Your task to perform on an android device: Search for "razer thresher" on amazon.com, select the first entry, and add it to the cart. Image 0: 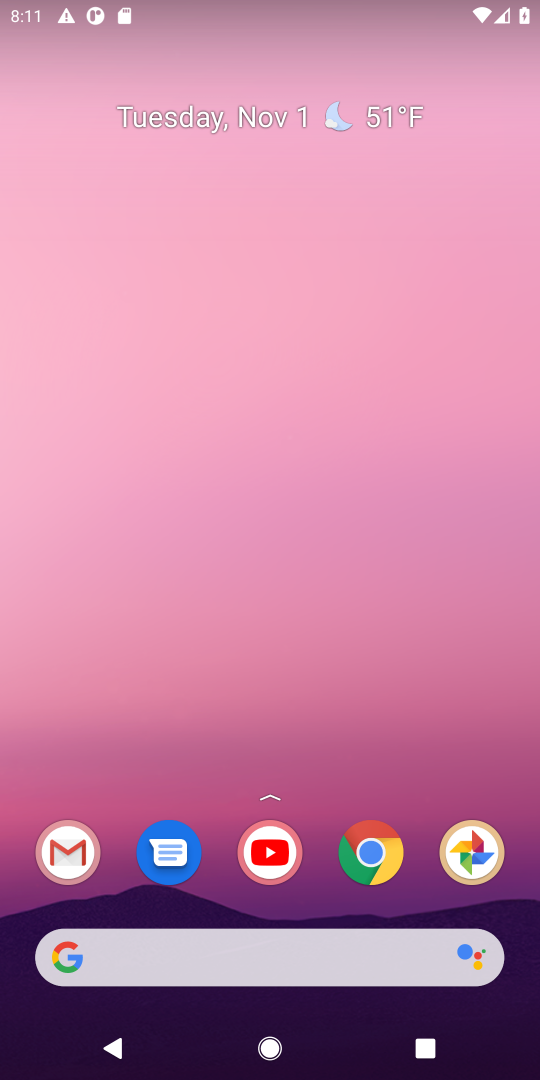
Step 0: drag from (268, 927) to (295, 258)
Your task to perform on an android device: Search for "razer thresher" on amazon.com, select the first entry, and add it to the cart. Image 1: 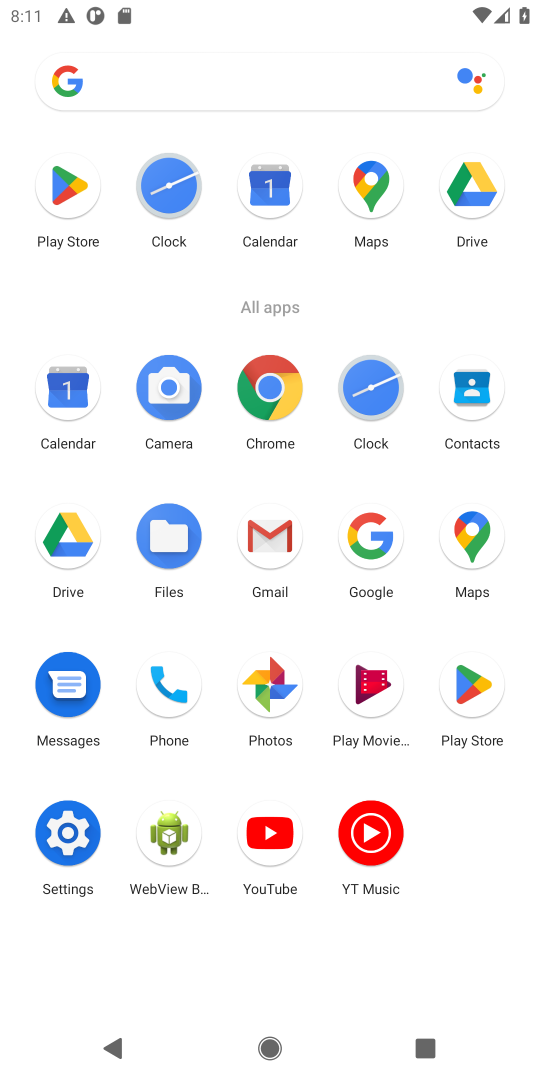
Step 1: click (379, 553)
Your task to perform on an android device: Search for "razer thresher" on amazon.com, select the first entry, and add it to the cart. Image 2: 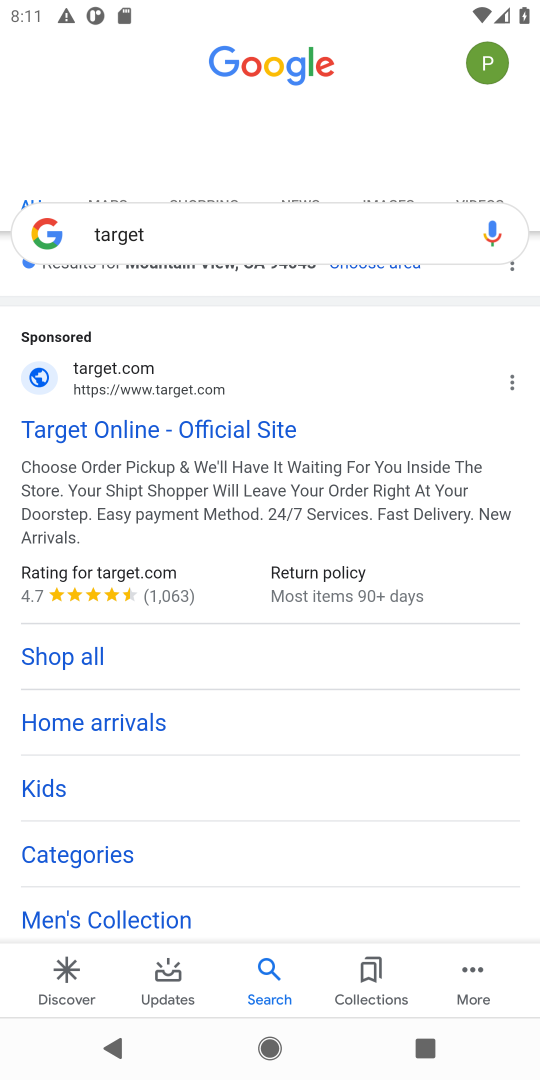
Step 2: click (322, 239)
Your task to perform on an android device: Search for "razer thresher" on amazon.com, select the first entry, and add it to the cart. Image 3: 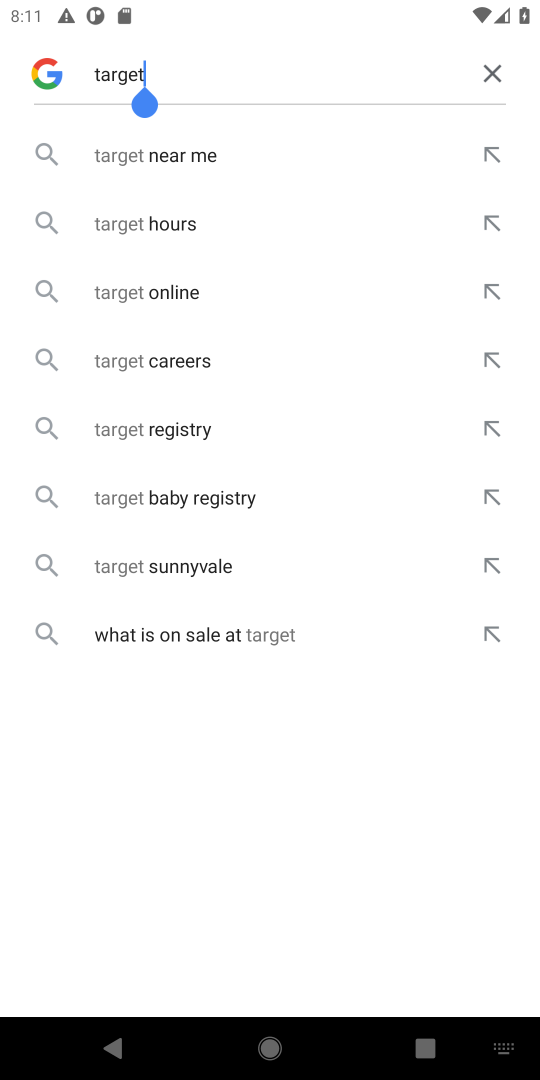
Step 3: click (492, 70)
Your task to perform on an android device: Search for "razer thresher" on amazon.com, select the first entry, and add it to the cart. Image 4: 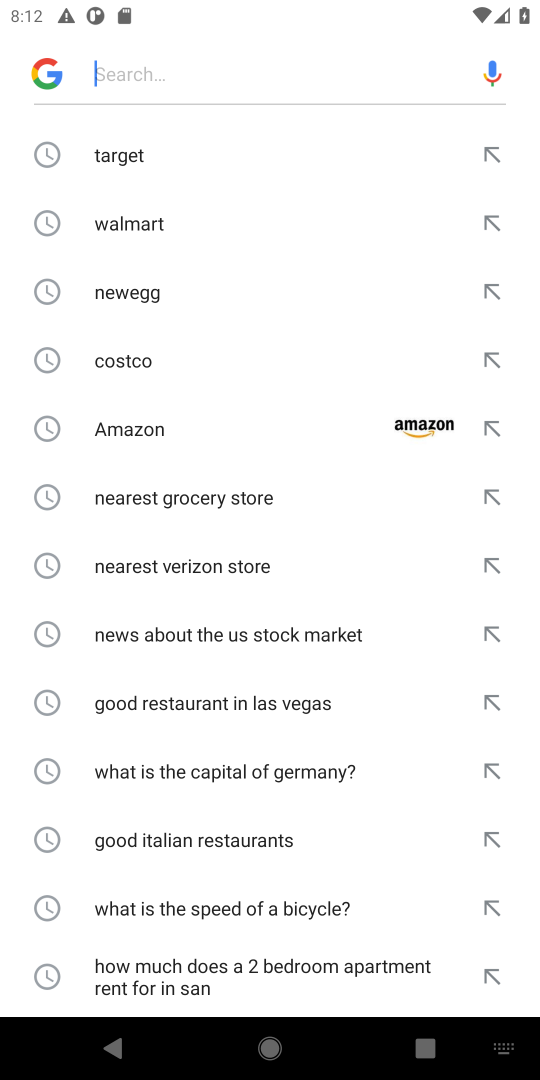
Step 4: type "amazon.com"
Your task to perform on an android device: Search for "razer thresher" on amazon.com, select the first entry, and add it to the cart. Image 5: 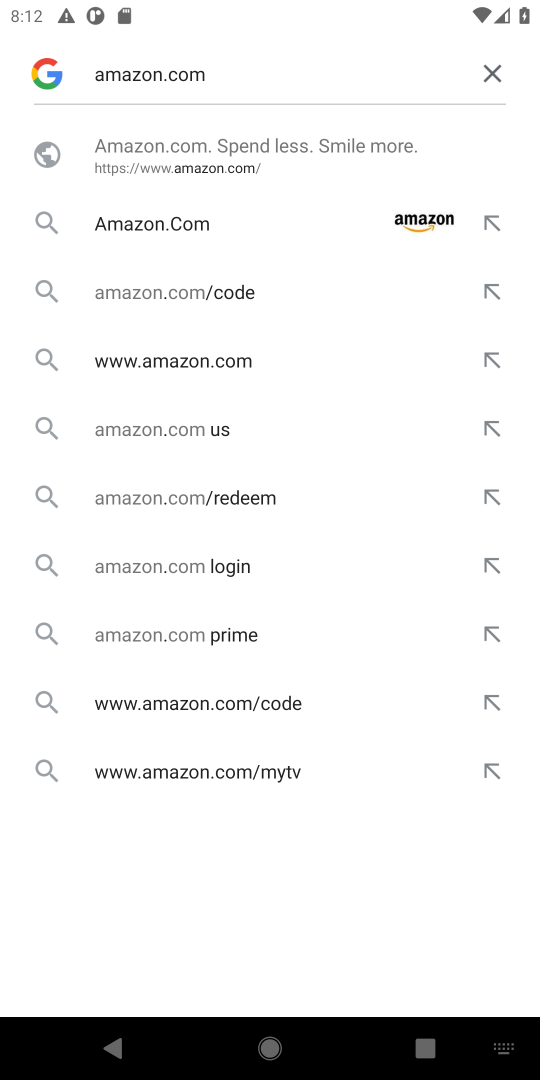
Step 5: click (285, 228)
Your task to perform on an android device: Search for "razer thresher" on amazon.com, select the first entry, and add it to the cart. Image 6: 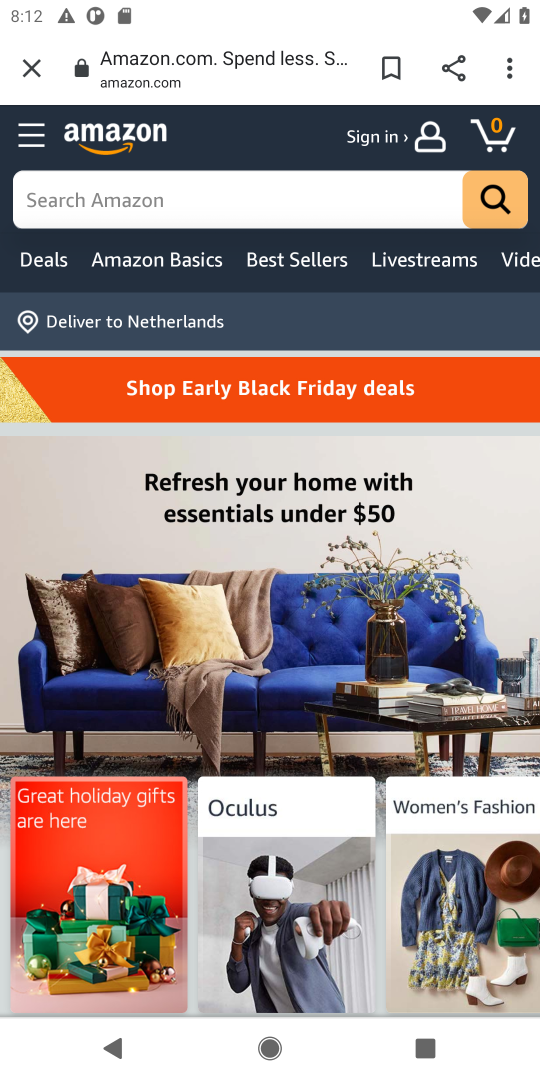
Step 6: click (320, 202)
Your task to perform on an android device: Search for "razer thresher" on amazon.com, select the first entry, and add it to the cart. Image 7: 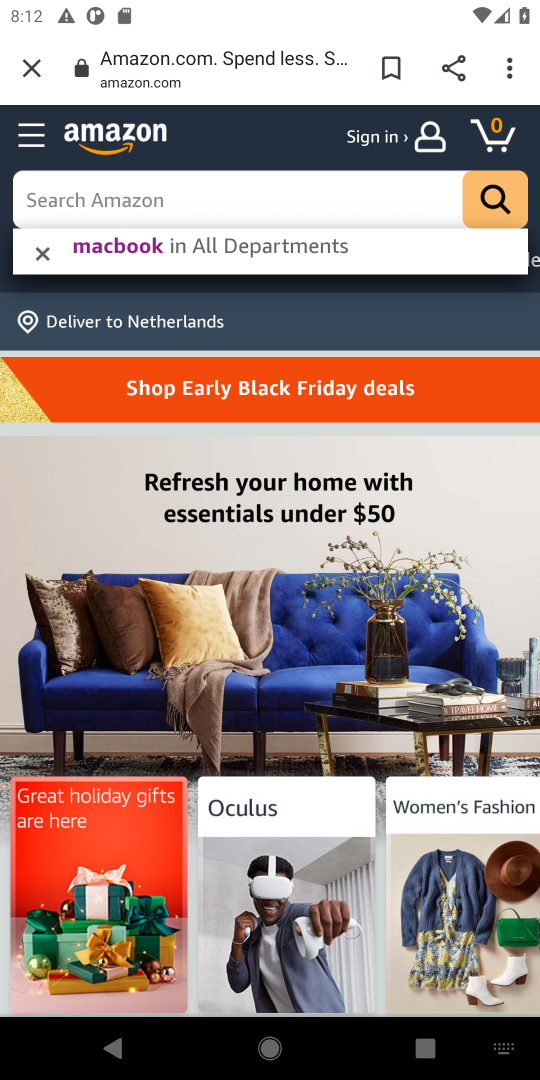
Step 7: type "razer thresher"
Your task to perform on an android device: Search for "razer thresher" on amazon.com, select the first entry, and add it to the cart. Image 8: 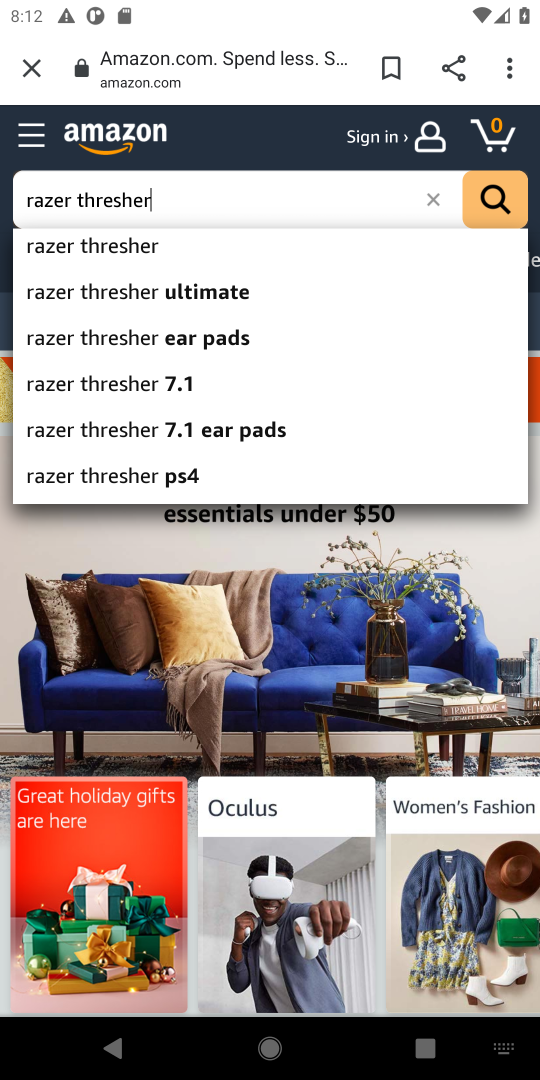
Step 8: click (139, 247)
Your task to perform on an android device: Search for "razer thresher" on amazon.com, select the first entry, and add it to the cart. Image 9: 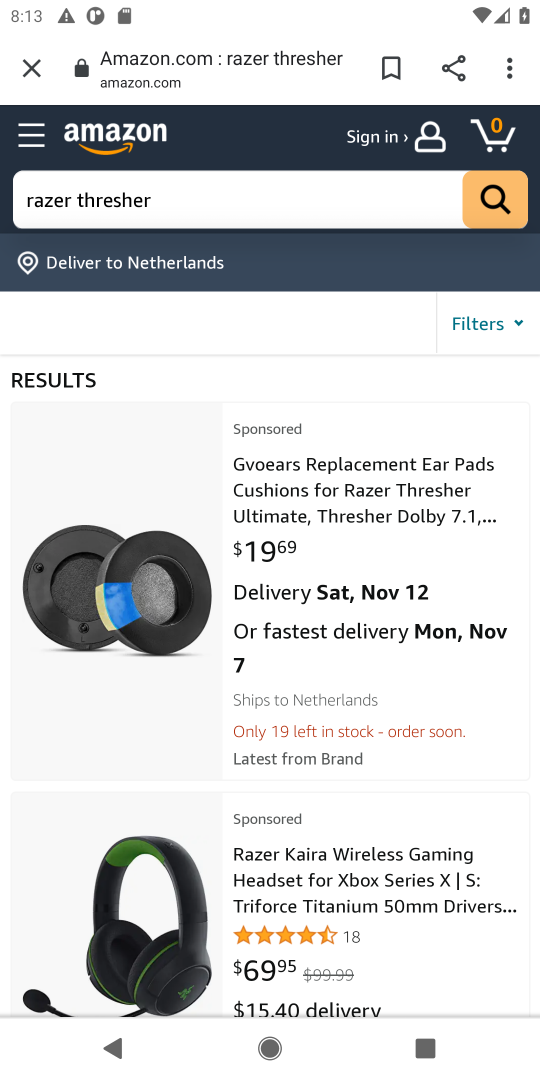
Step 9: click (278, 492)
Your task to perform on an android device: Search for "razer thresher" on amazon.com, select the first entry, and add it to the cart. Image 10: 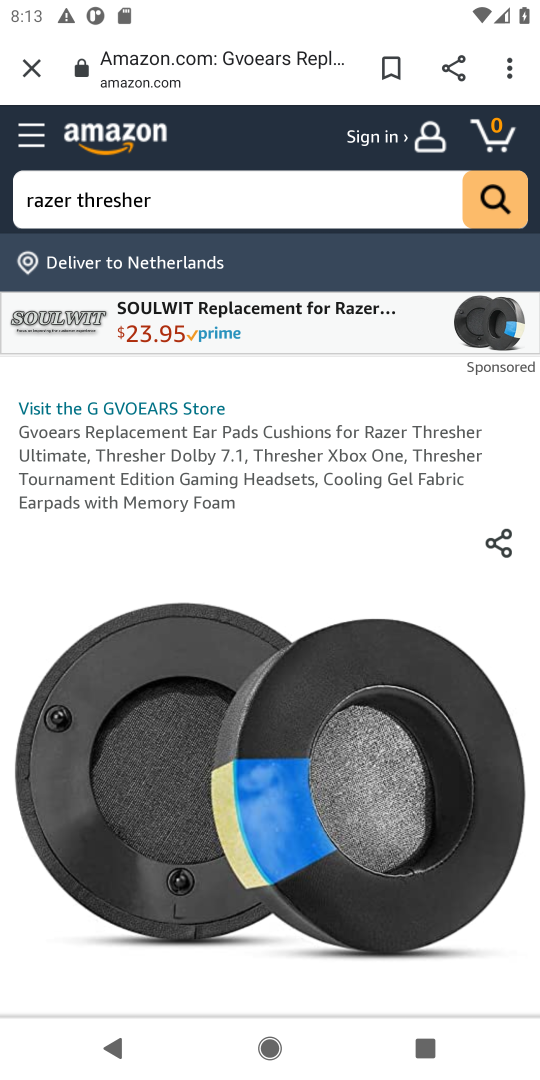
Step 10: drag from (340, 619) to (410, 366)
Your task to perform on an android device: Search for "razer thresher" on amazon.com, select the first entry, and add it to the cart. Image 11: 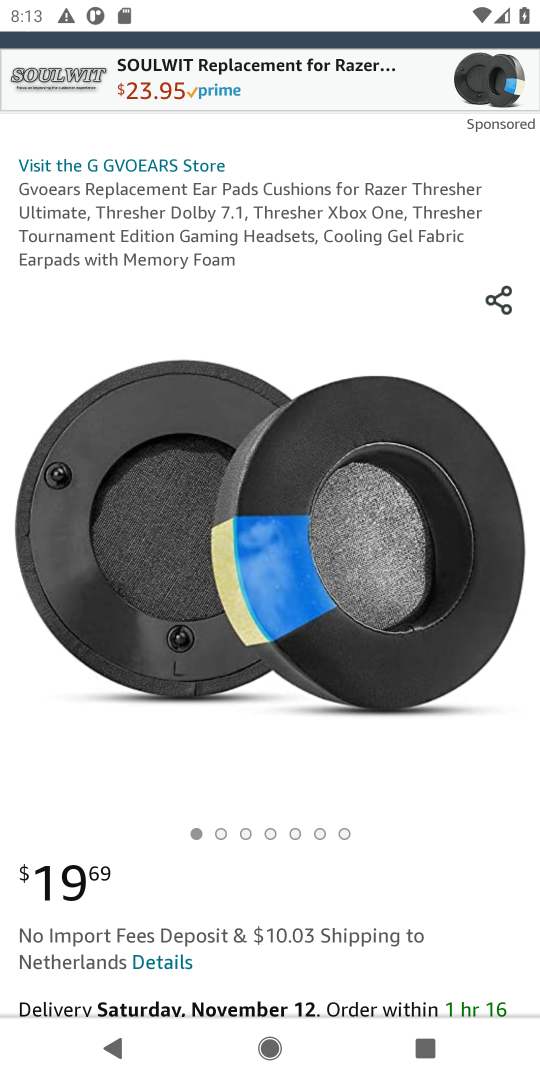
Step 11: drag from (378, 750) to (423, 440)
Your task to perform on an android device: Search for "razer thresher" on amazon.com, select the first entry, and add it to the cart. Image 12: 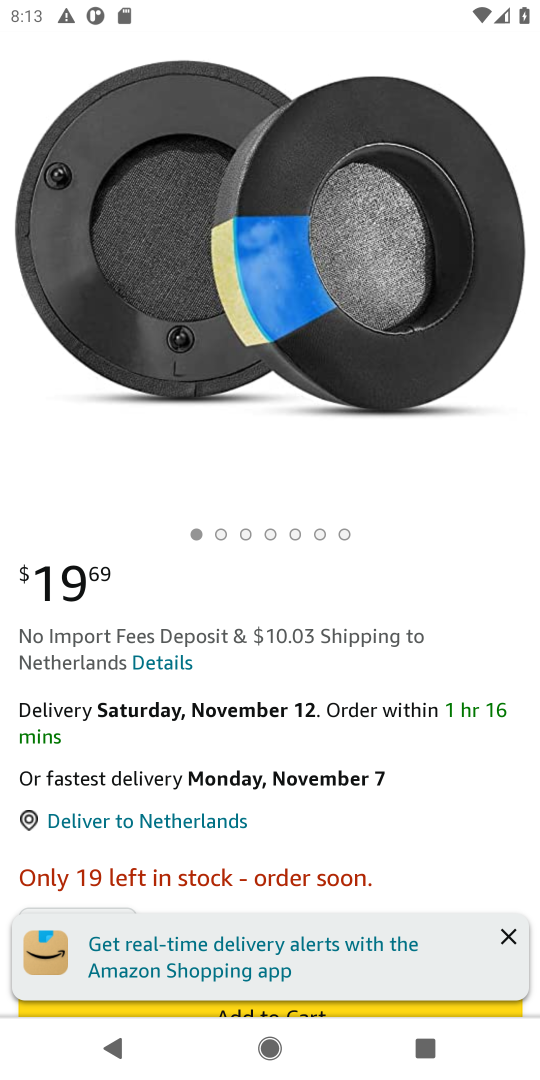
Step 12: drag from (391, 715) to (384, 183)
Your task to perform on an android device: Search for "razer thresher" on amazon.com, select the first entry, and add it to the cart. Image 13: 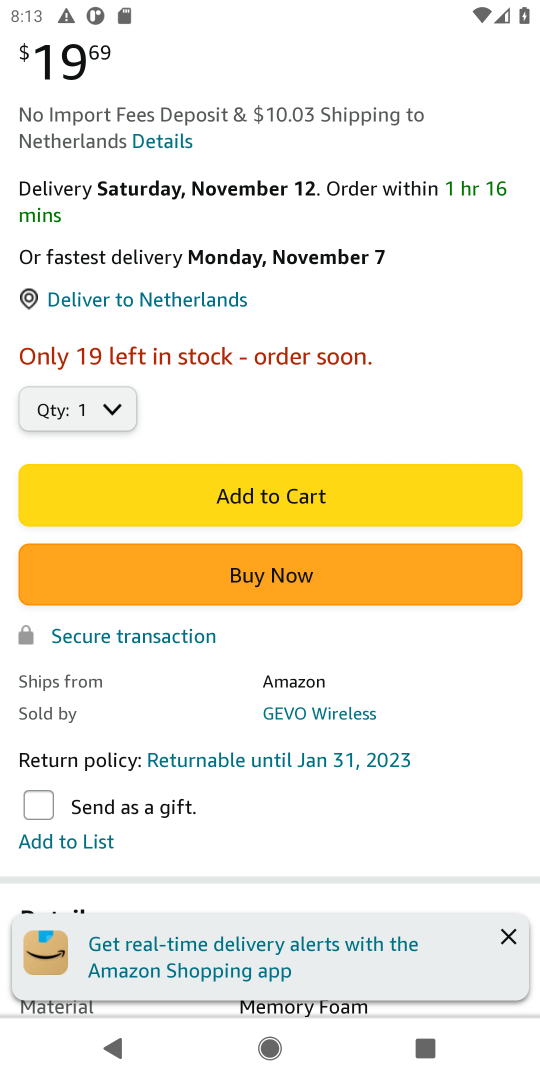
Step 13: click (343, 478)
Your task to perform on an android device: Search for "razer thresher" on amazon.com, select the first entry, and add it to the cart. Image 14: 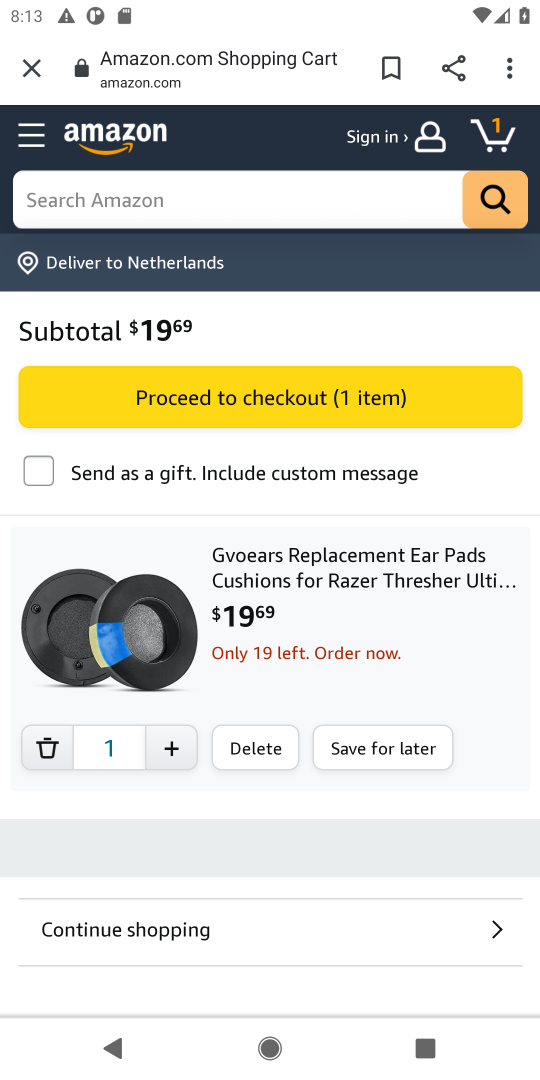
Step 14: task complete